Your task to perform on an android device: turn off airplane mode Image 0: 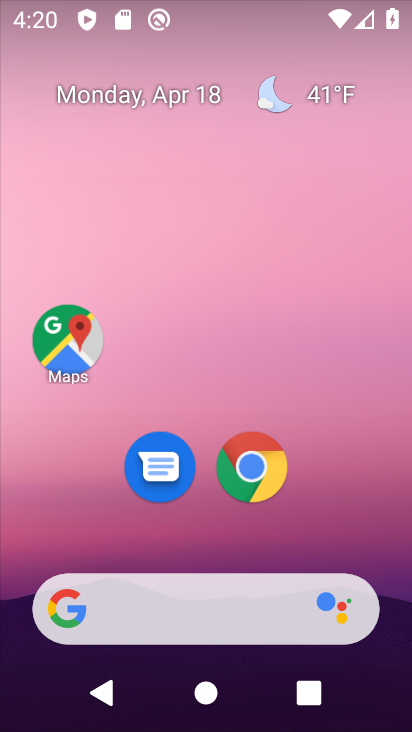
Step 0: click (247, 155)
Your task to perform on an android device: turn off airplane mode Image 1: 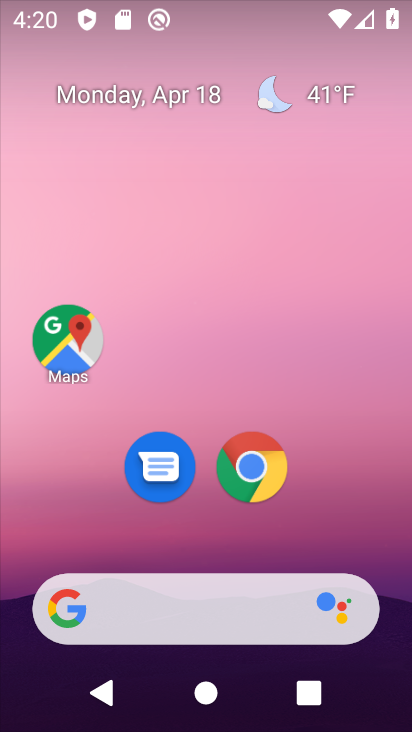
Step 1: drag from (212, 538) to (204, 113)
Your task to perform on an android device: turn off airplane mode Image 2: 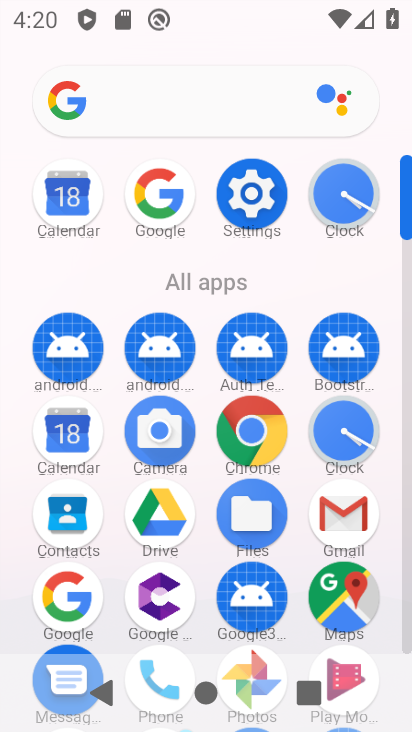
Step 2: click (239, 166)
Your task to perform on an android device: turn off airplane mode Image 3: 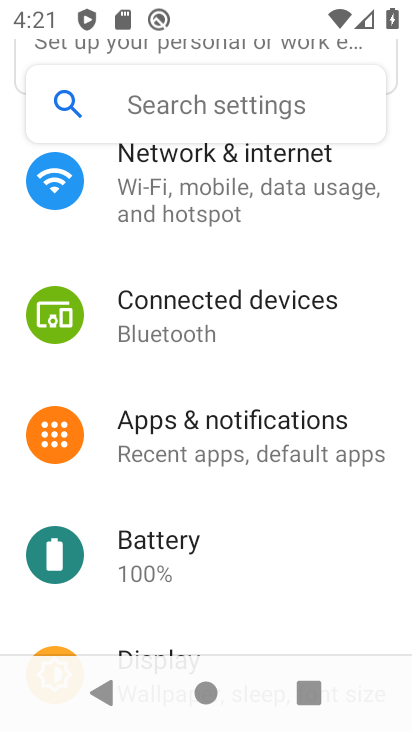
Step 3: click (217, 182)
Your task to perform on an android device: turn off airplane mode Image 4: 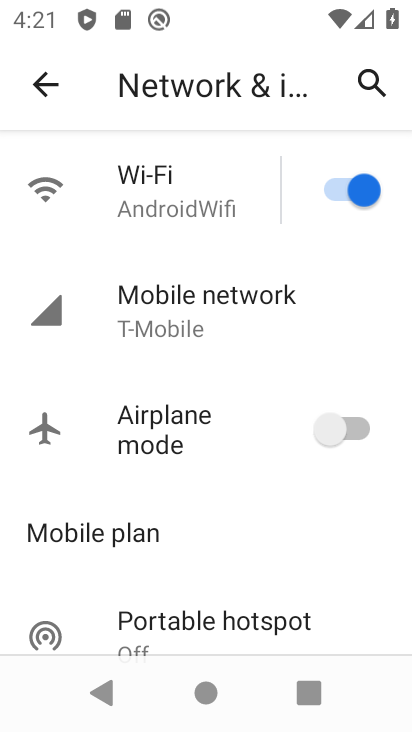
Step 4: task complete